Your task to perform on an android device: When is my next appointment? Image 0: 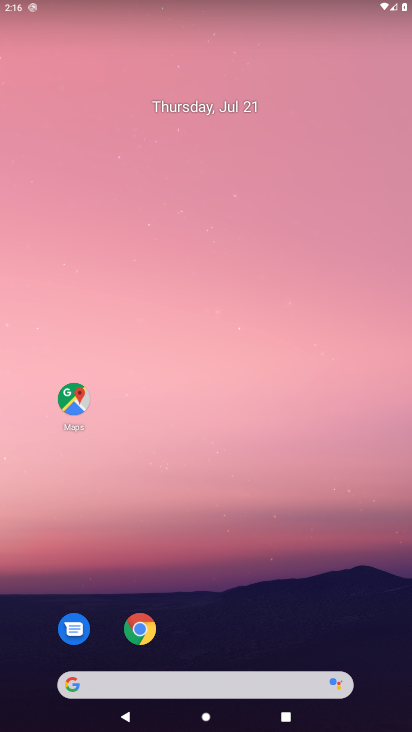
Step 0: drag from (35, 630) to (199, 77)
Your task to perform on an android device: When is my next appointment? Image 1: 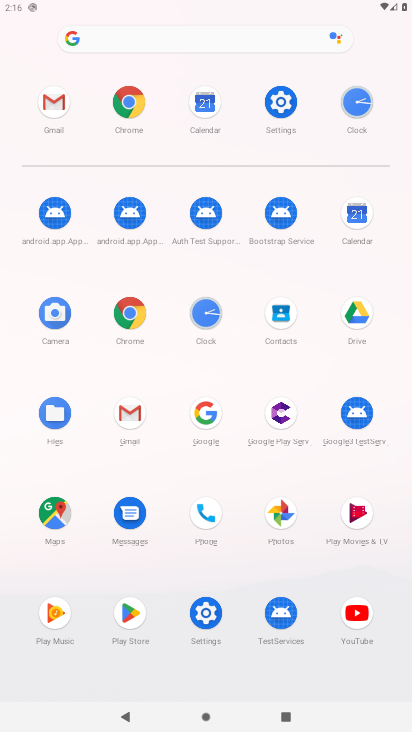
Step 1: click (349, 229)
Your task to perform on an android device: When is my next appointment? Image 2: 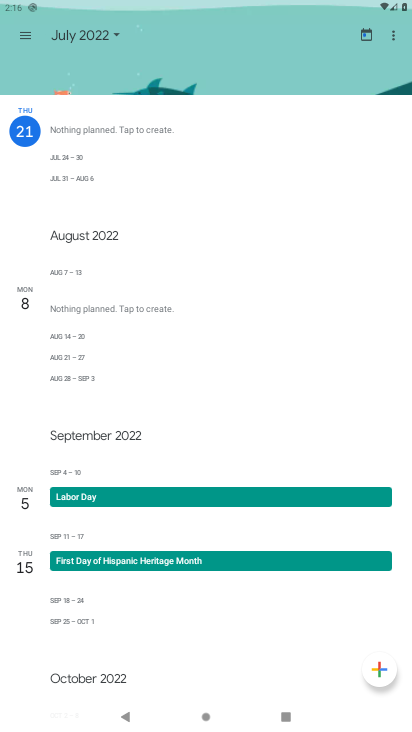
Step 2: task complete